Your task to perform on an android device: set the timer Image 0: 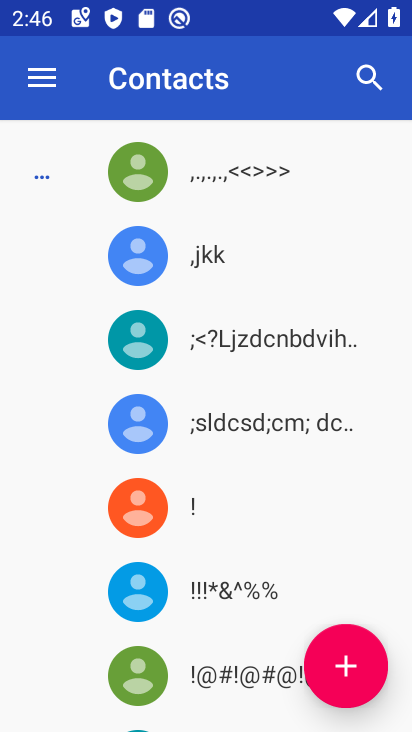
Step 0: press back button
Your task to perform on an android device: set the timer Image 1: 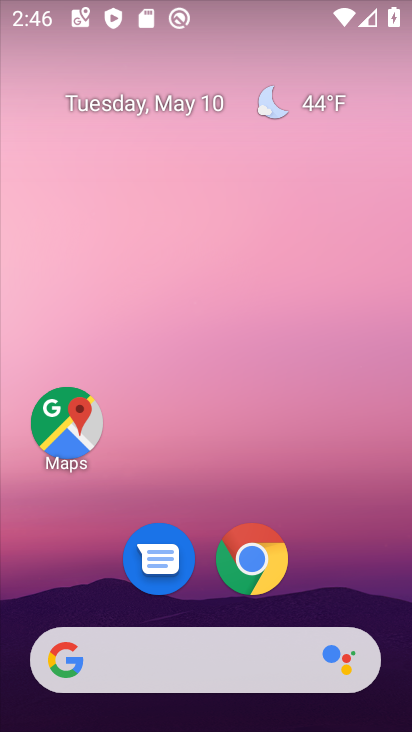
Step 1: drag from (348, 600) to (1, 31)
Your task to perform on an android device: set the timer Image 2: 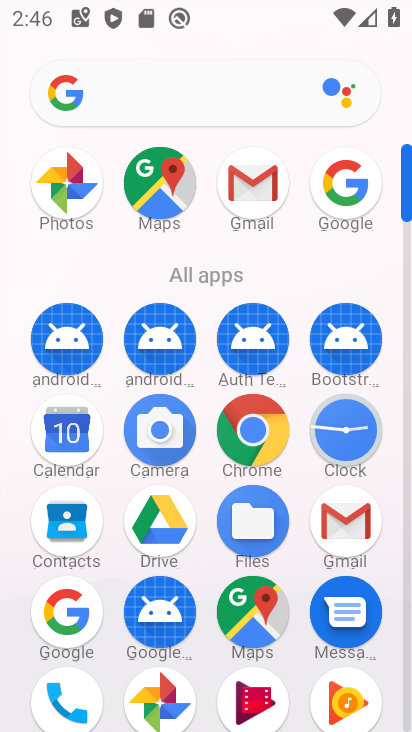
Step 2: click (338, 436)
Your task to perform on an android device: set the timer Image 3: 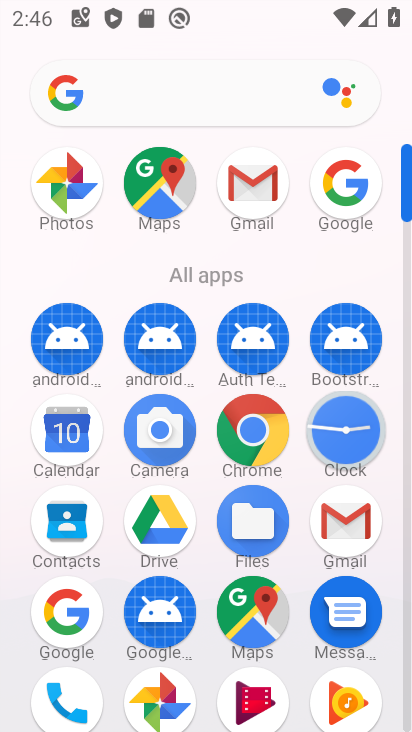
Step 3: click (329, 428)
Your task to perform on an android device: set the timer Image 4: 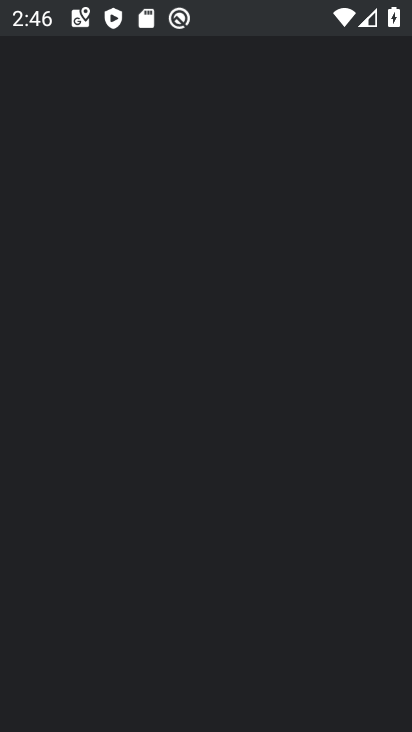
Step 4: click (328, 426)
Your task to perform on an android device: set the timer Image 5: 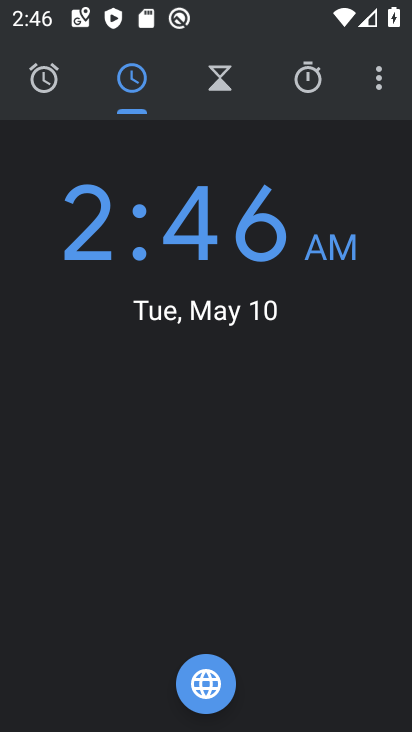
Step 5: click (216, 89)
Your task to perform on an android device: set the timer Image 6: 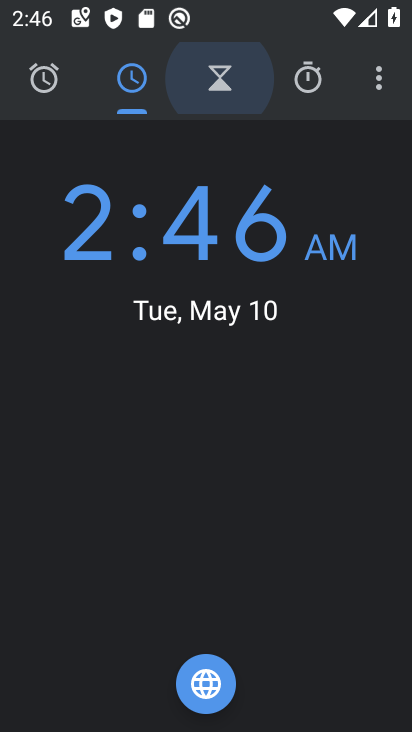
Step 6: click (216, 86)
Your task to perform on an android device: set the timer Image 7: 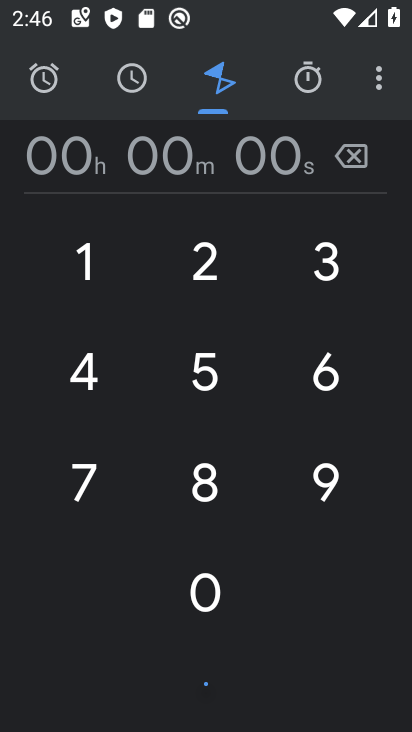
Step 7: click (210, 77)
Your task to perform on an android device: set the timer Image 8: 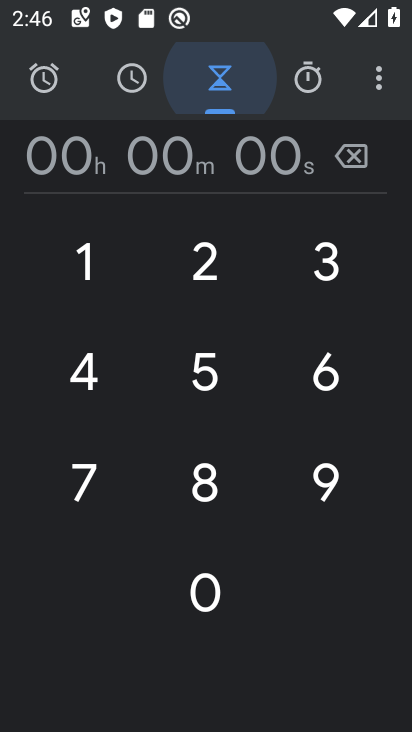
Step 8: click (212, 78)
Your task to perform on an android device: set the timer Image 9: 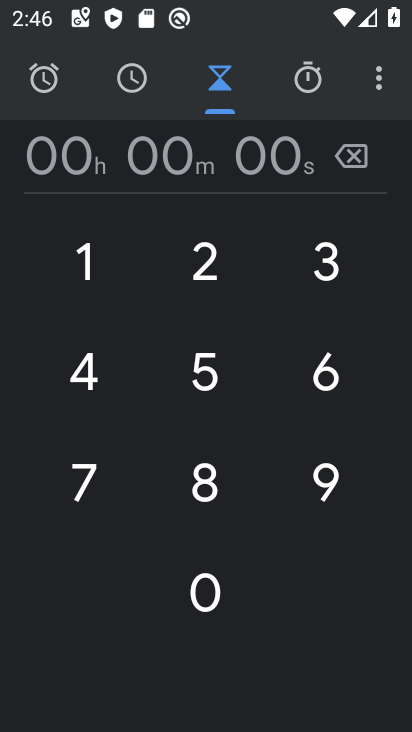
Step 9: click (196, 483)
Your task to perform on an android device: set the timer Image 10: 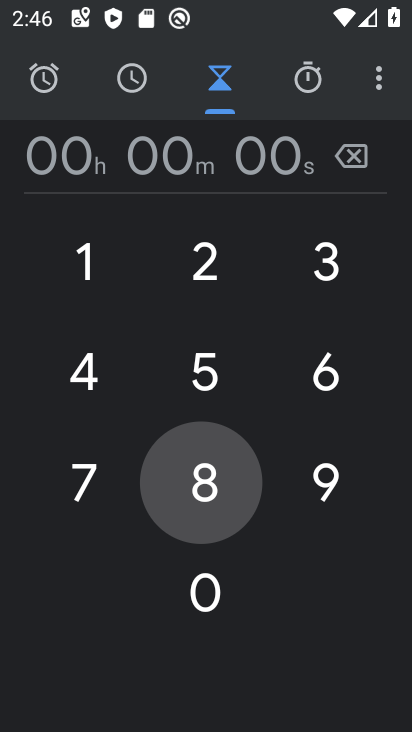
Step 10: click (199, 473)
Your task to perform on an android device: set the timer Image 11: 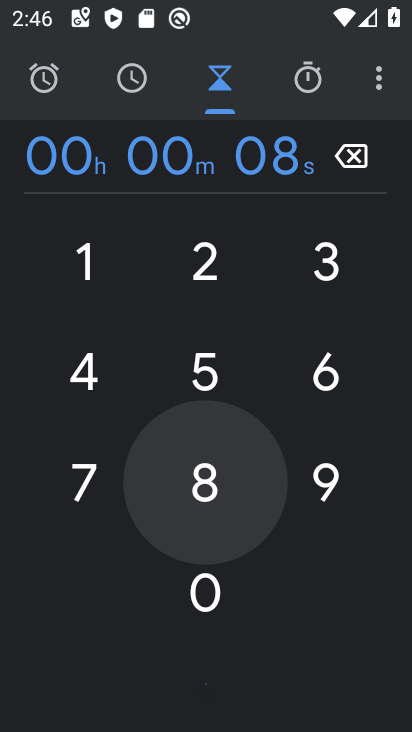
Step 11: click (199, 446)
Your task to perform on an android device: set the timer Image 12: 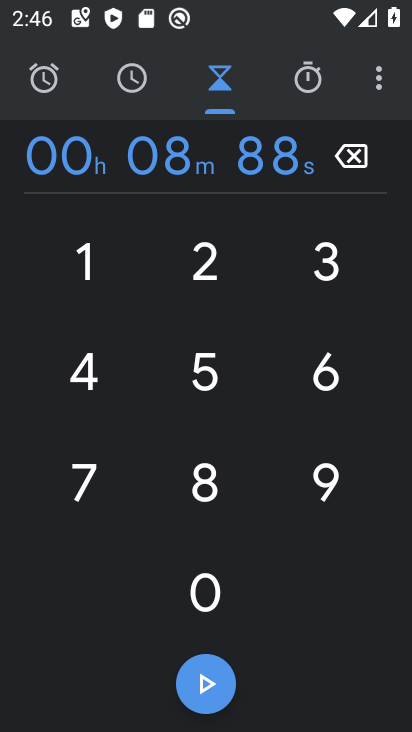
Step 12: click (207, 683)
Your task to perform on an android device: set the timer Image 13: 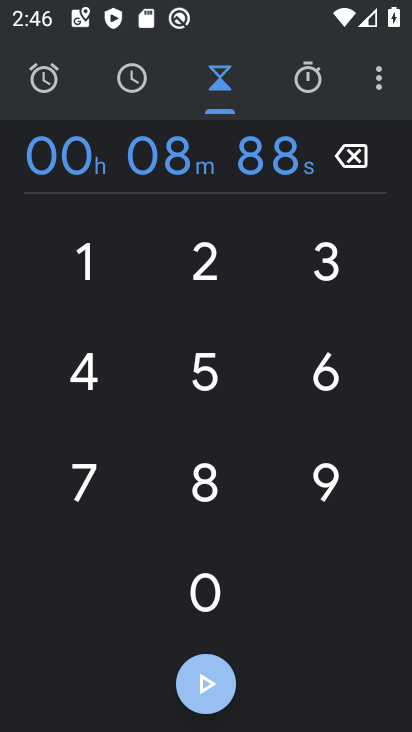
Step 13: click (198, 685)
Your task to perform on an android device: set the timer Image 14: 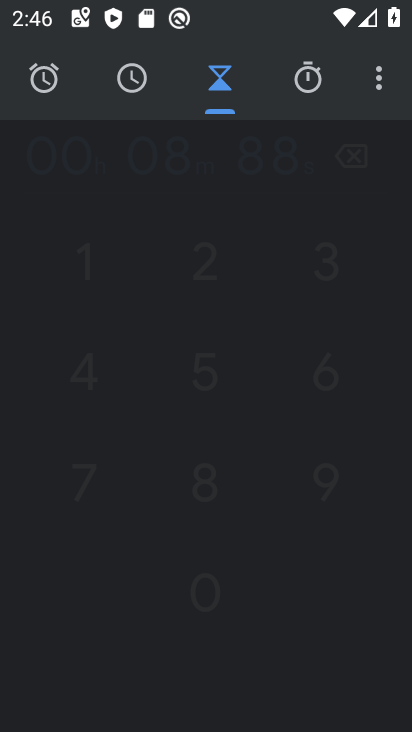
Step 14: click (198, 677)
Your task to perform on an android device: set the timer Image 15: 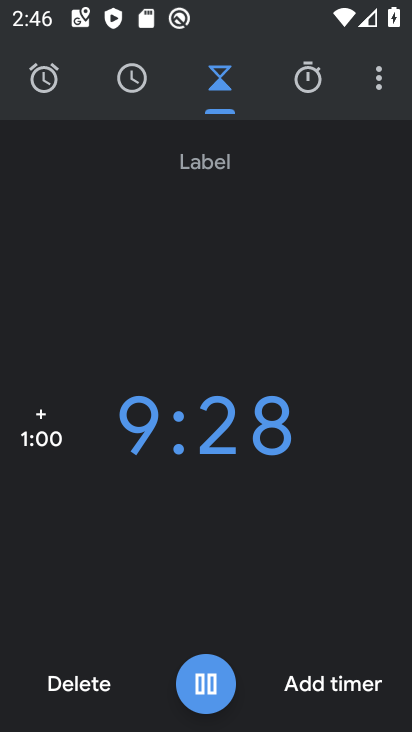
Step 15: click (198, 673)
Your task to perform on an android device: set the timer Image 16: 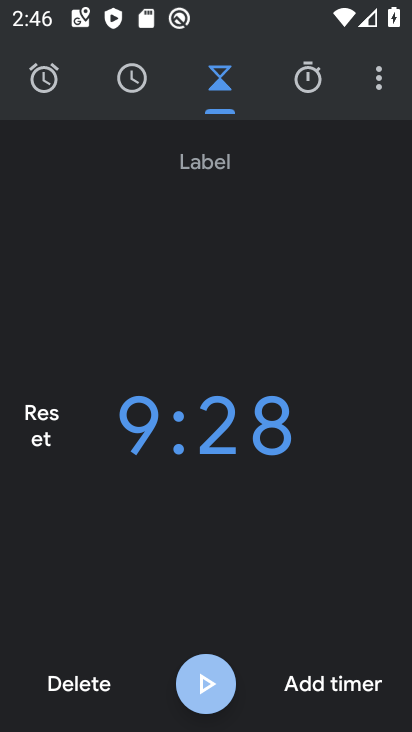
Step 16: click (198, 669)
Your task to perform on an android device: set the timer Image 17: 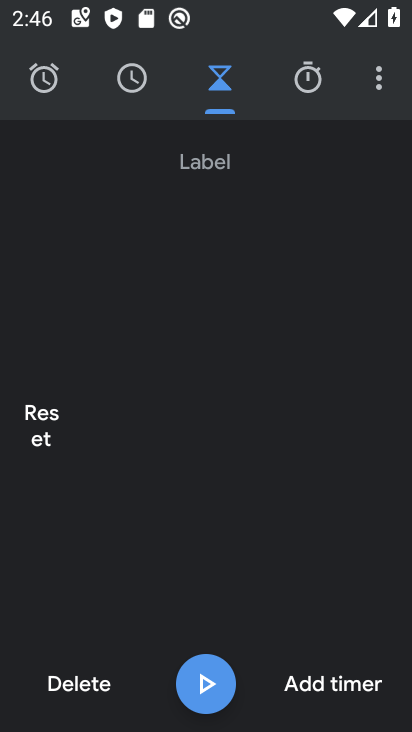
Step 17: click (208, 680)
Your task to perform on an android device: set the timer Image 18: 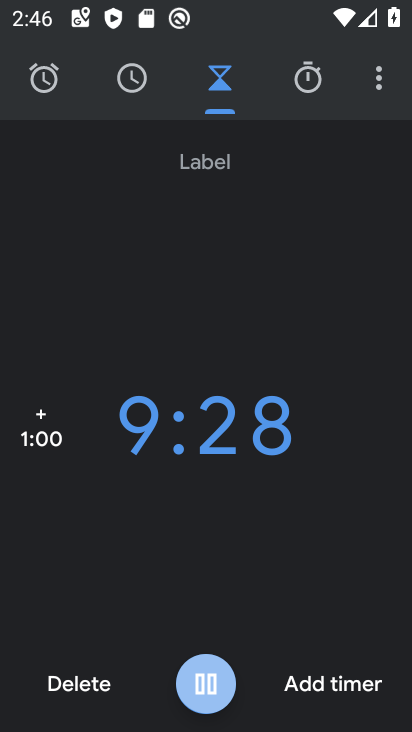
Step 18: click (176, 682)
Your task to perform on an android device: set the timer Image 19: 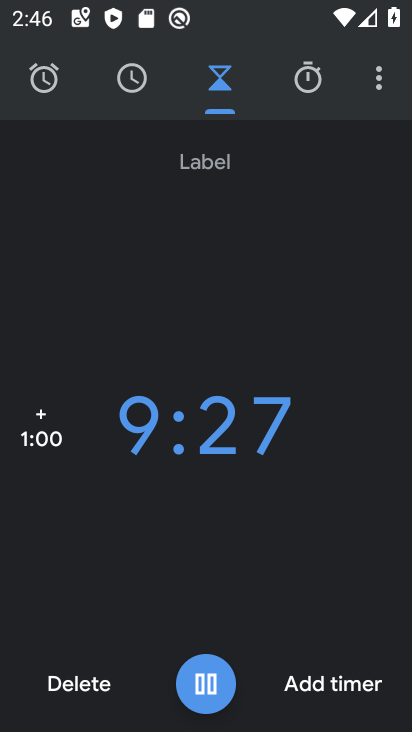
Step 19: click (200, 681)
Your task to perform on an android device: set the timer Image 20: 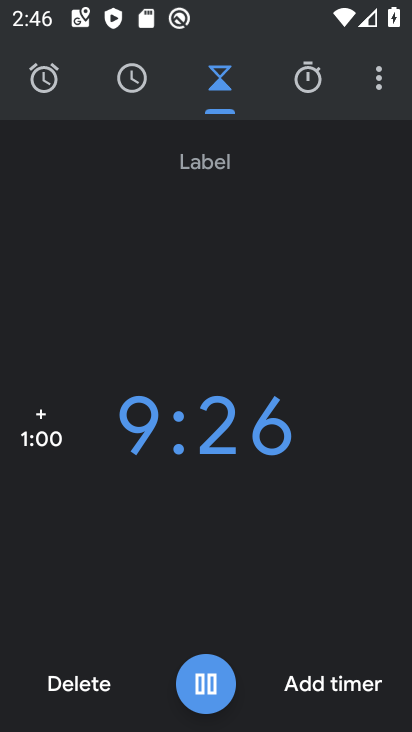
Step 20: click (200, 681)
Your task to perform on an android device: set the timer Image 21: 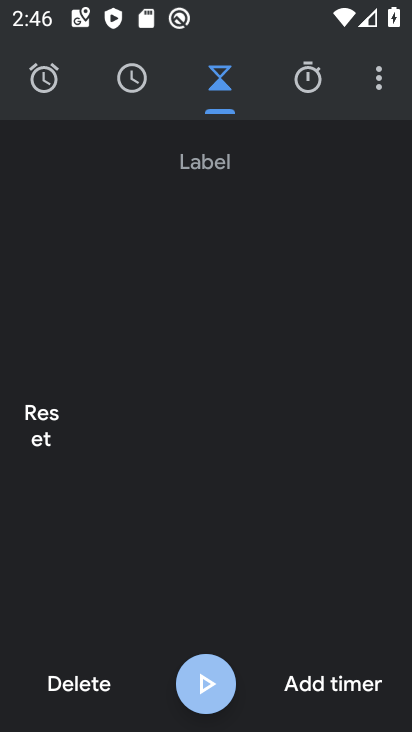
Step 21: click (201, 683)
Your task to perform on an android device: set the timer Image 22: 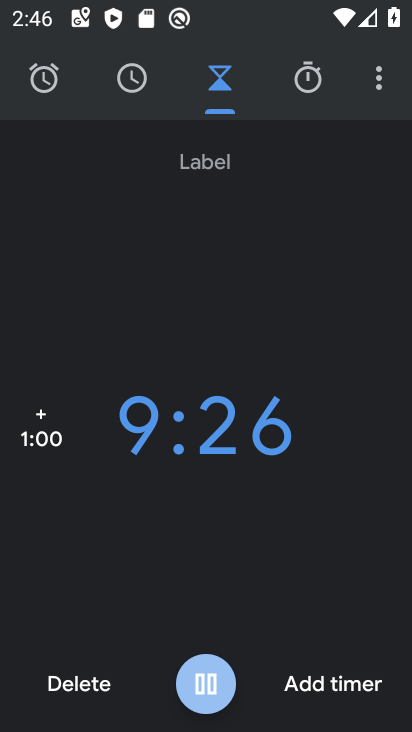
Step 22: click (202, 682)
Your task to perform on an android device: set the timer Image 23: 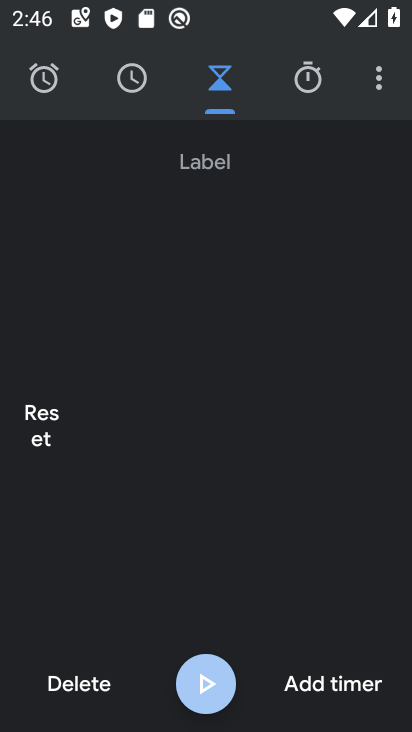
Step 23: click (203, 681)
Your task to perform on an android device: set the timer Image 24: 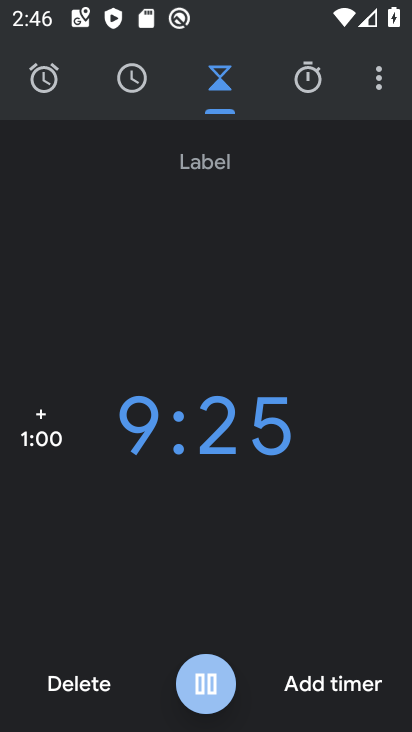
Step 24: click (218, 646)
Your task to perform on an android device: set the timer Image 25: 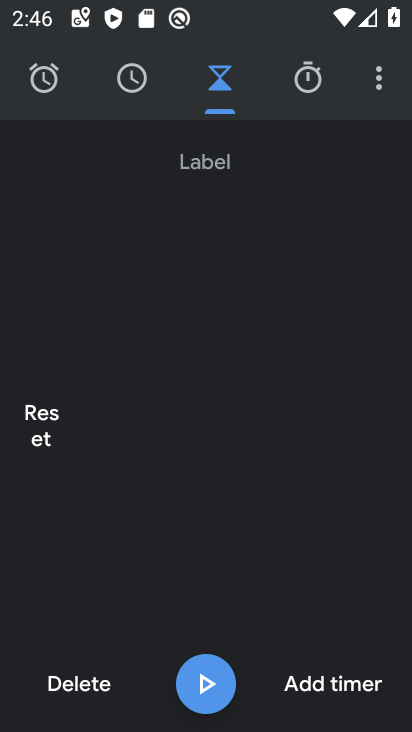
Step 25: click (319, 679)
Your task to perform on an android device: set the timer Image 26: 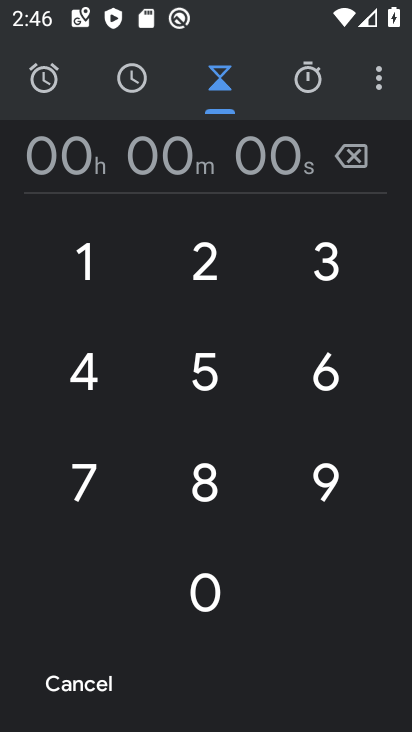
Step 26: task complete